Your task to perform on an android device: Open maps Image 0: 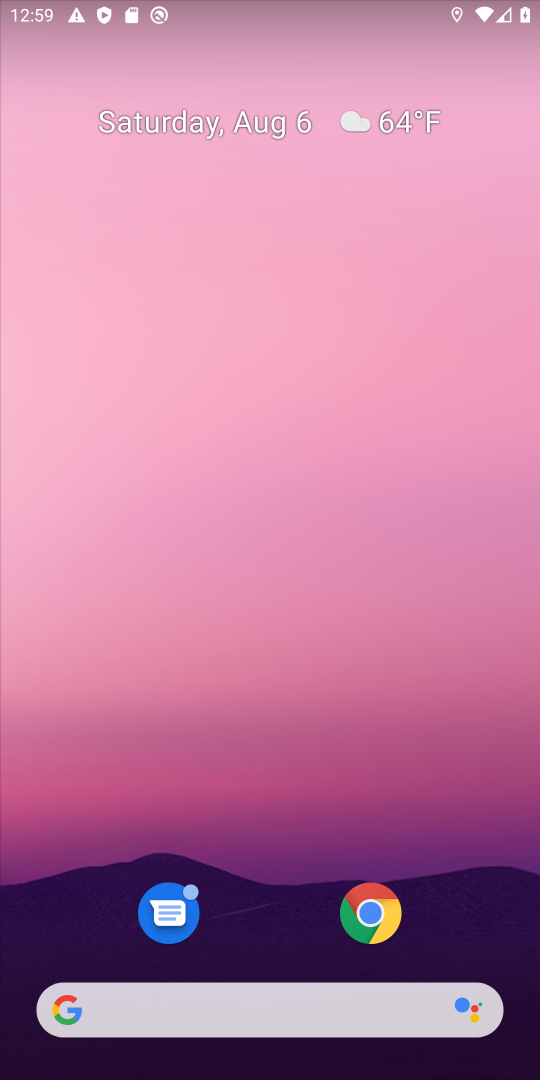
Step 0: press home button
Your task to perform on an android device: Open maps Image 1: 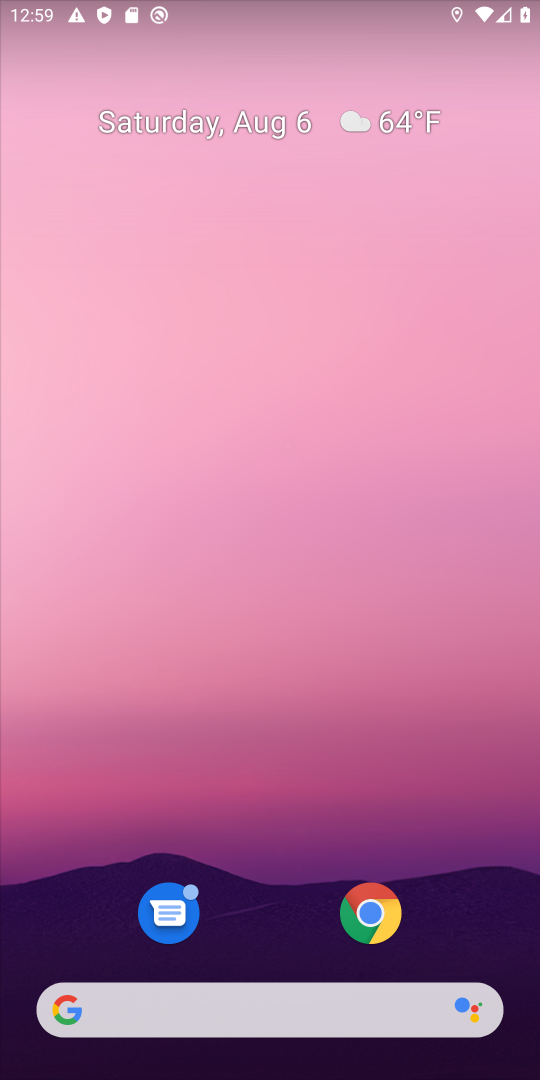
Step 1: drag from (468, 946) to (483, 199)
Your task to perform on an android device: Open maps Image 2: 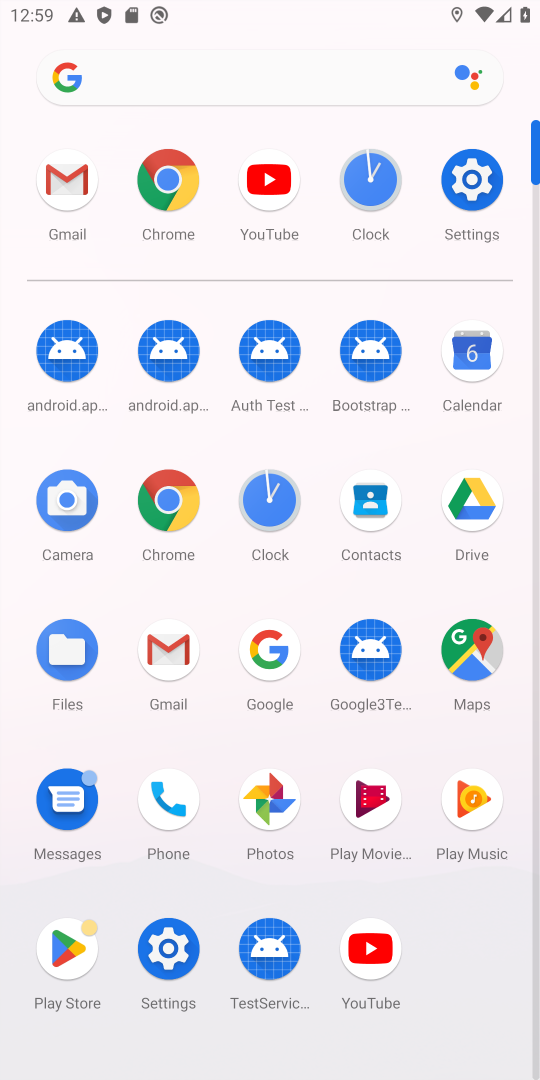
Step 2: click (463, 656)
Your task to perform on an android device: Open maps Image 3: 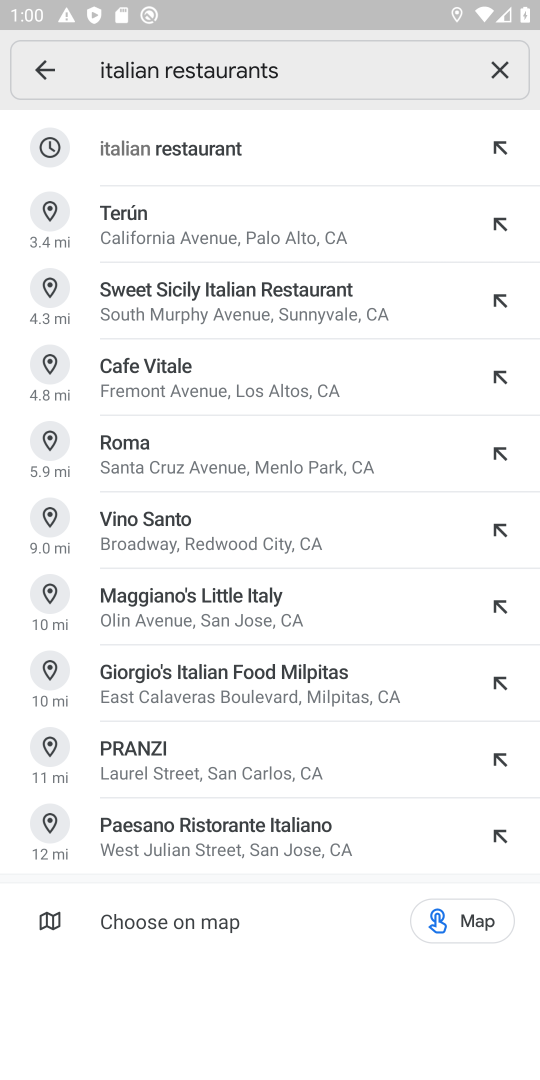
Step 3: task complete